Your task to perform on an android device: Open the Play Movies app and select the watchlist tab. Image 0: 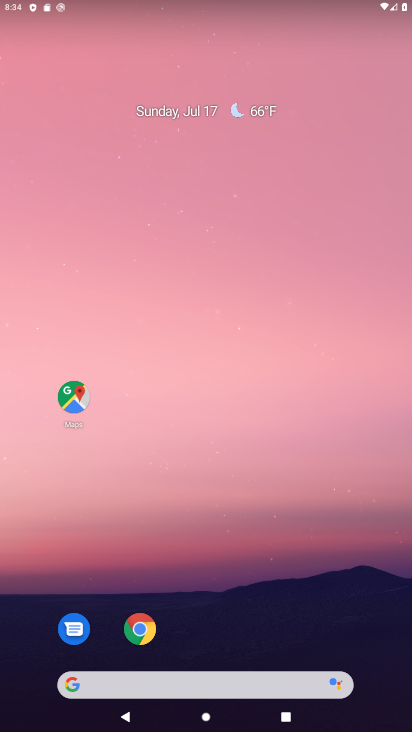
Step 0: drag from (239, 637) to (246, 6)
Your task to perform on an android device: Open the Play Movies app and select the watchlist tab. Image 1: 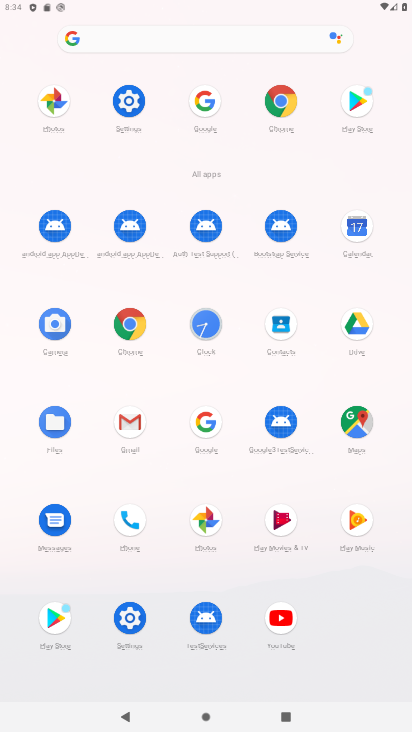
Step 1: click (279, 516)
Your task to perform on an android device: Open the Play Movies app and select the watchlist tab. Image 2: 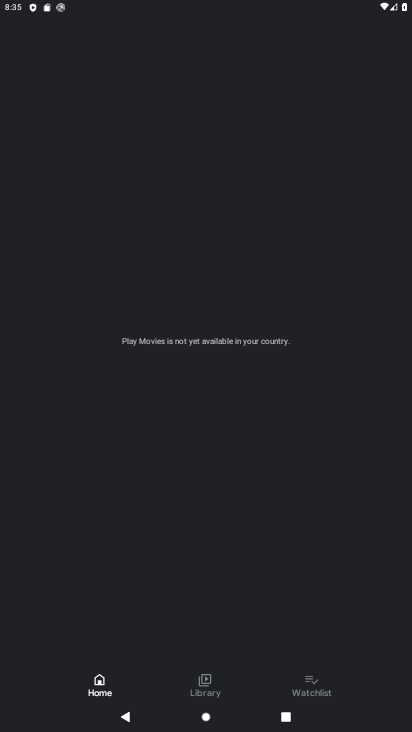
Step 2: click (315, 676)
Your task to perform on an android device: Open the Play Movies app and select the watchlist tab. Image 3: 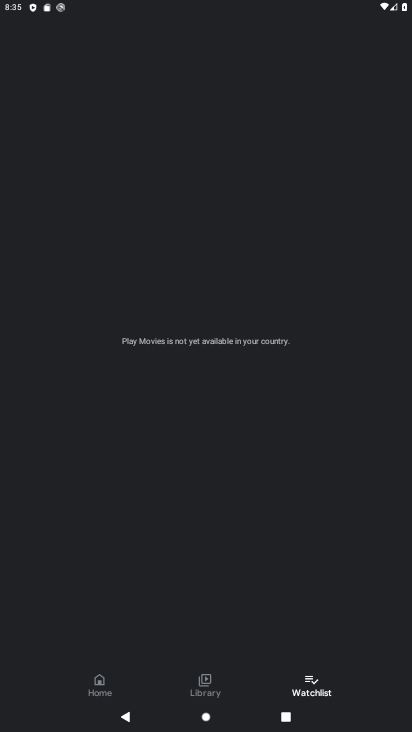
Step 3: task complete